Your task to perform on an android device: turn pop-ups off in chrome Image 0: 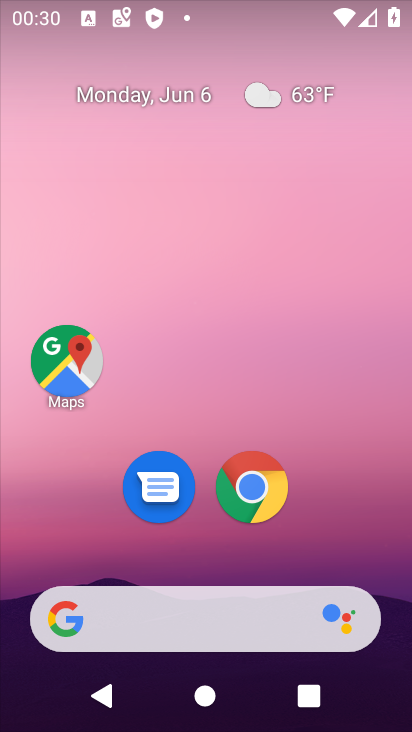
Step 0: click (252, 488)
Your task to perform on an android device: turn pop-ups off in chrome Image 1: 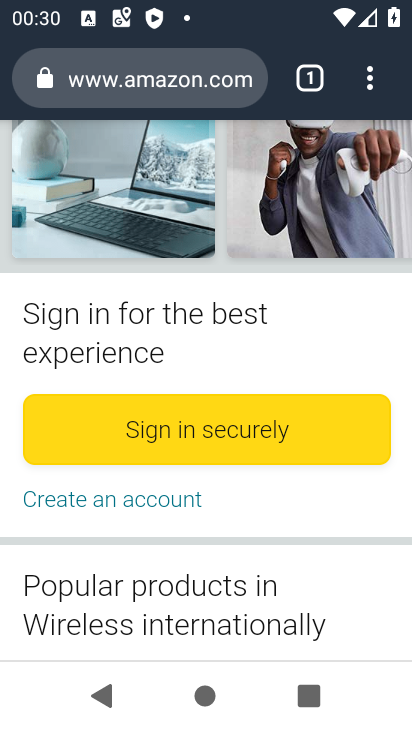
Step 1: click (363, 89)
Your task to perform on an android device: turn pop-ups off in chrome Image 2: 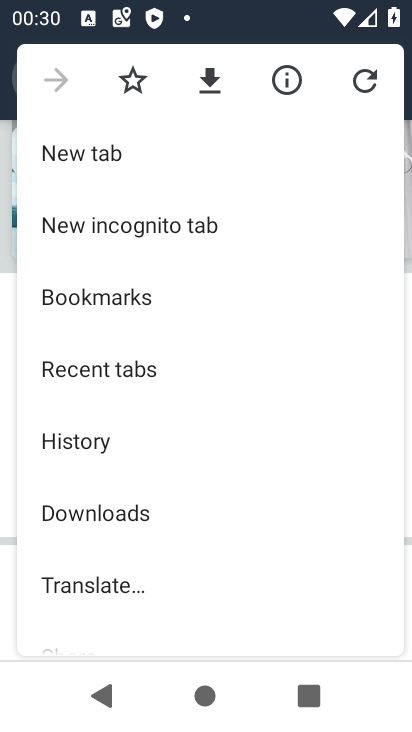
Step 2: drag from (210, 596) to (243, 149)
Your task to perform on an android device: turn pop-ups off in chrome Image 3: 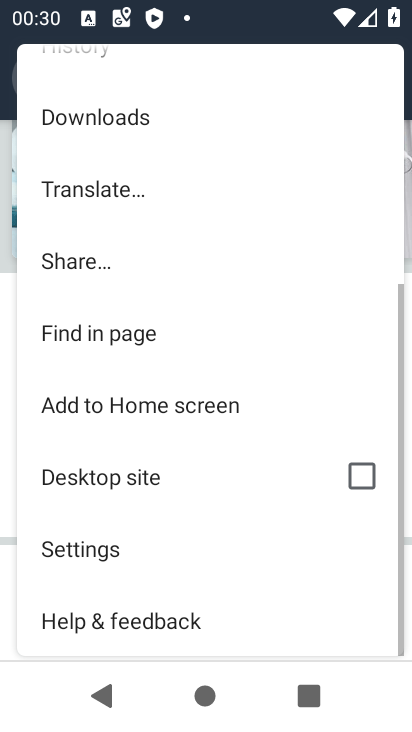
Step 3: click (97, 548)
Your task to perform on an android device: turn pop-ups off in chrome Image 4: 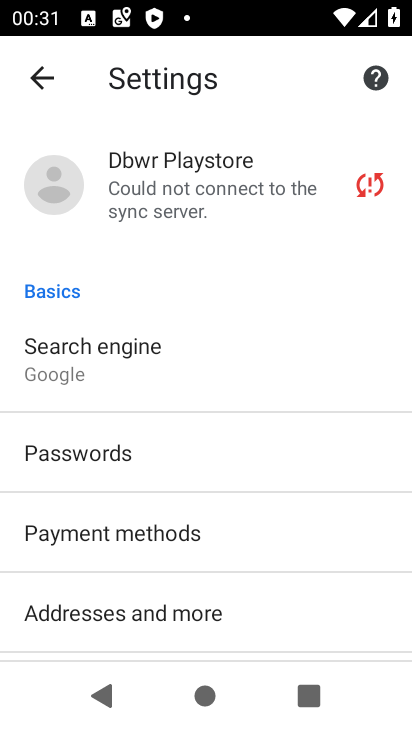
Step 4: drag from (261, 621) to (223, 108)
Your task to perform on an android device: turn pop-ups off in chrome Image 5: 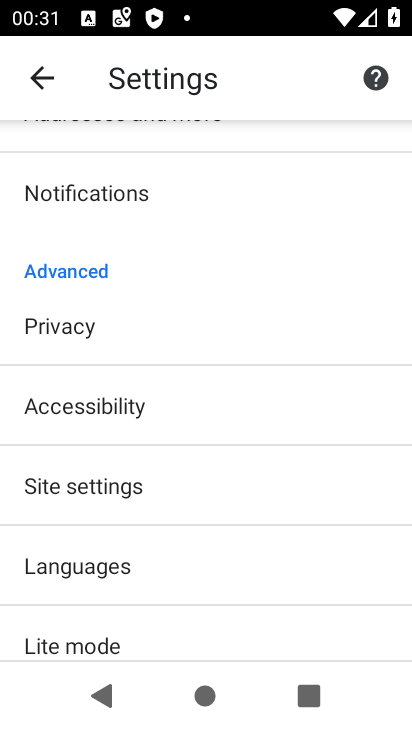
Step 5: click (115, 495)
Your task to perform on an android device: turn pop-ups off in chrome Image 6: 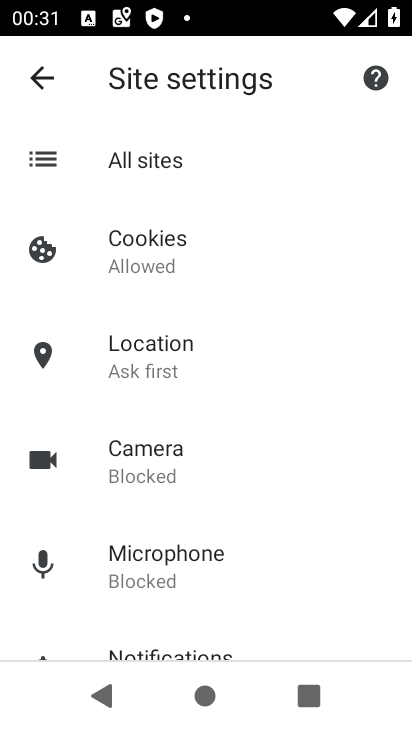
Step 6: drag from (264, 608) to (249, 210)
Your task to perform on an android device: turn pop-ups off in chrome Image 7: 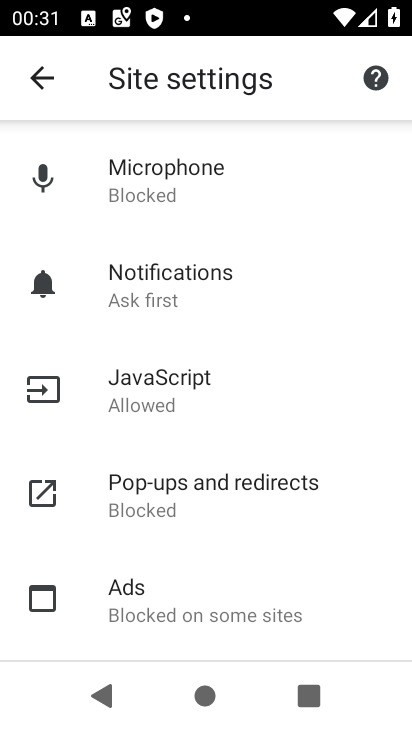
Step 7: click (143, 492)
Your task to perform on an android device: turn pop-ups off in chrome Image 8: 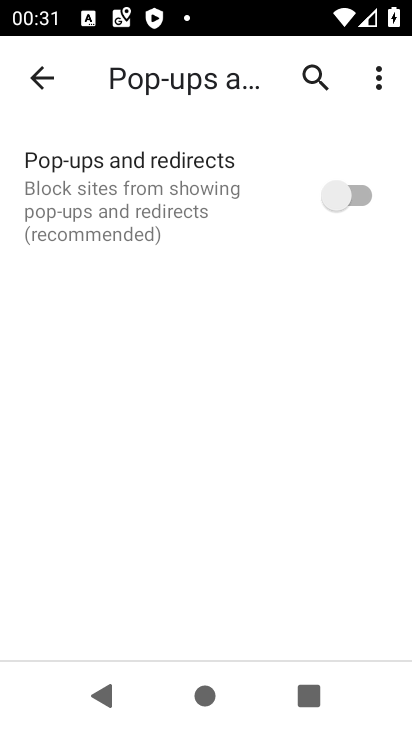
Step 8: task complete